Your task to perform on an android device: Show me productivity apps on the Play Store Image 0: 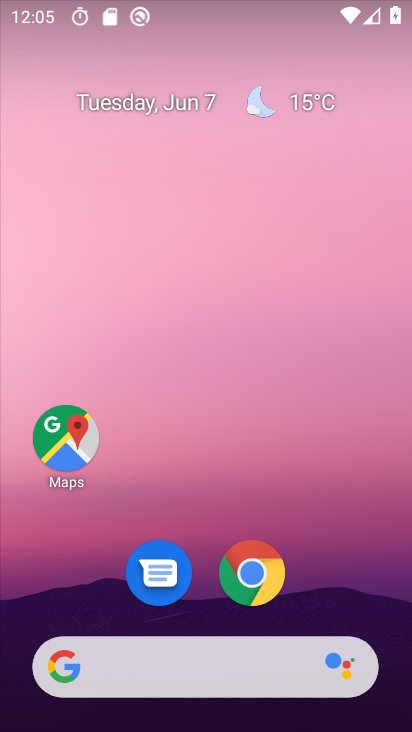
Step 0: drag from (211, 617) to (172, 115)
Your task to perform on an android device: Show me productivity apps on the Play Store Image 1: 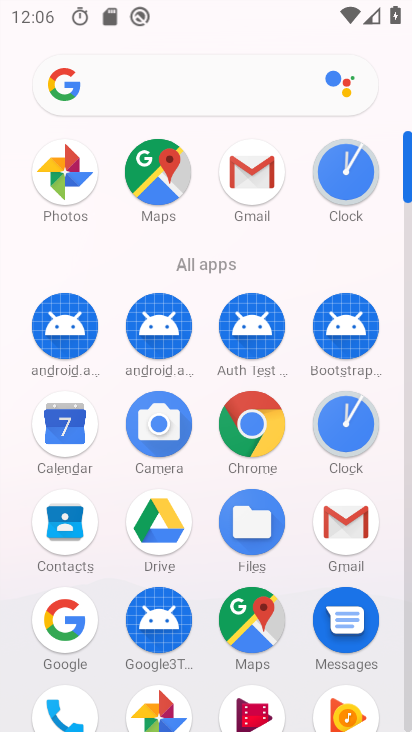
Step 1: drag from (113, 592) to (113, 240)
Your task to perform on an android device: Show me productivity apps on the Play Store Image 2: 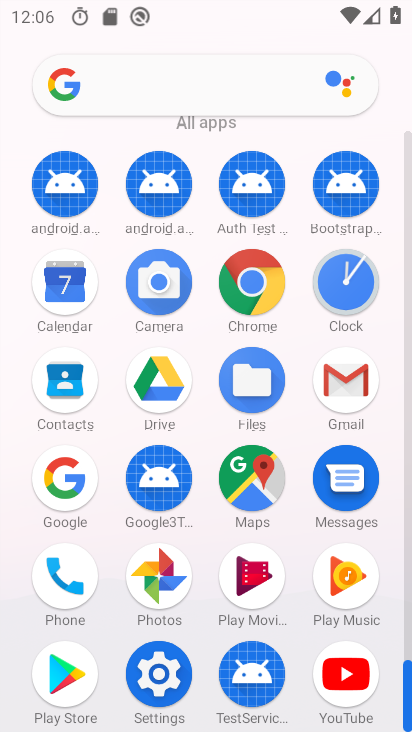
Step 2: click (67, 680)
Your task to perform on an android device: Show me productivity apps on the Play Store Image 3: 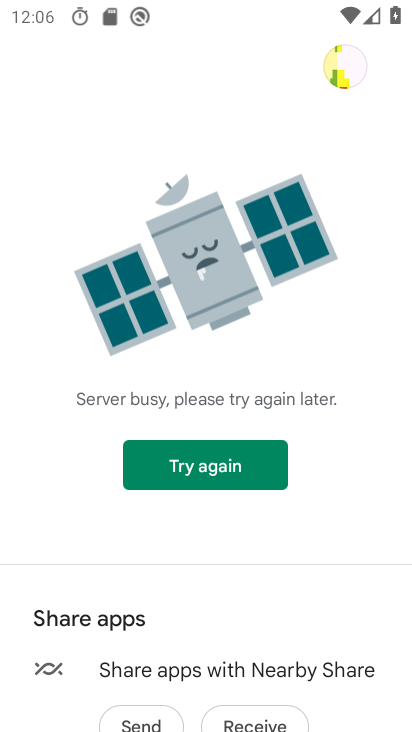
Step 3: drag from (222, 607) to (226, 239)
Your task to perform on an android device: Show me productivity apps on the Play Store Image 4: 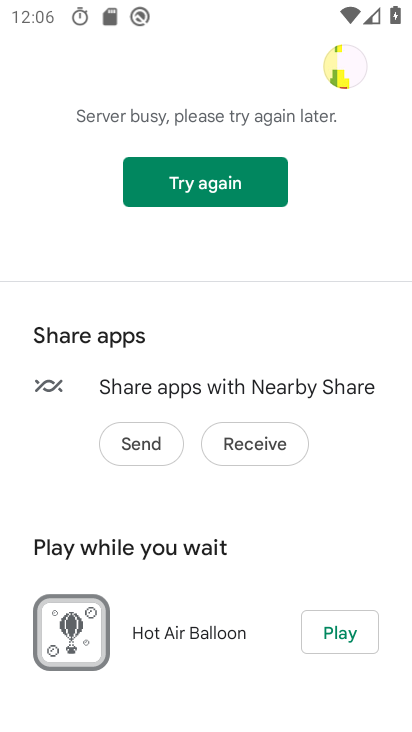
Step 4: drag from (223, 486) to (224, 164)
Your task to perform on an android device: Show me productivity apps on the Play Store Image 5: 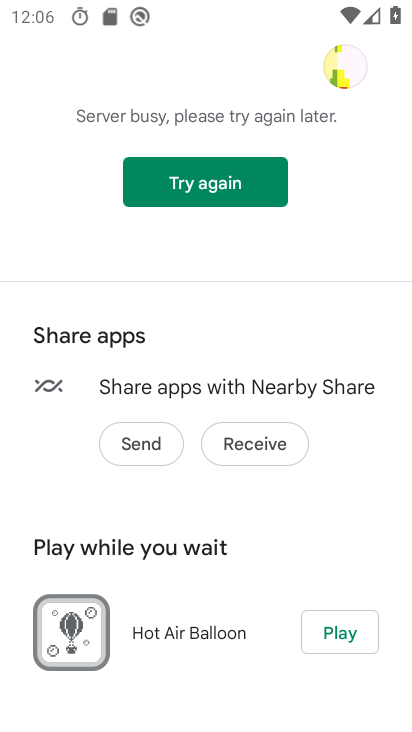
Step 5: click (215, 187)
Your task to perform on an android device: Show me productivity apps on the Play Store Image 6: 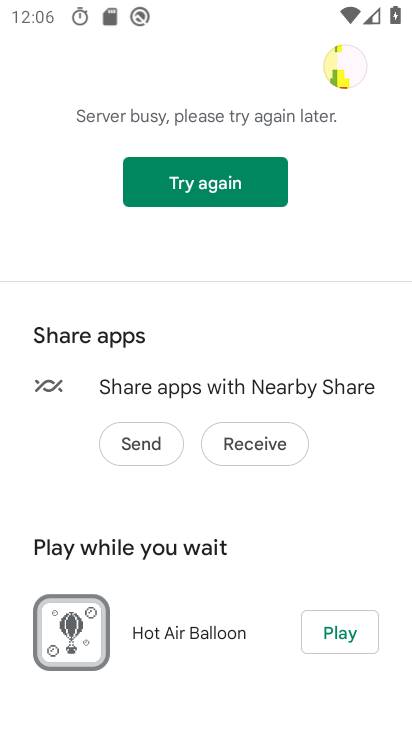
Step 6: click (215, 187)
Your task to perform on an android device: Show me productivity apps on the Play Store Image 7: 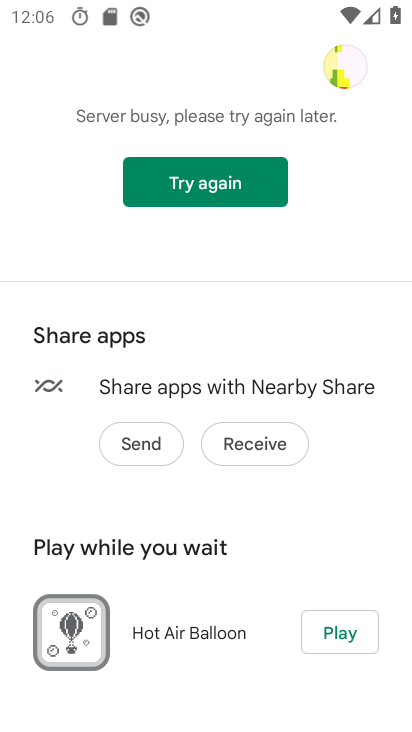
Step 7: click (215, 187)
Your task to perform on an android device: Show me productivity apps on the Play Store Image 8: 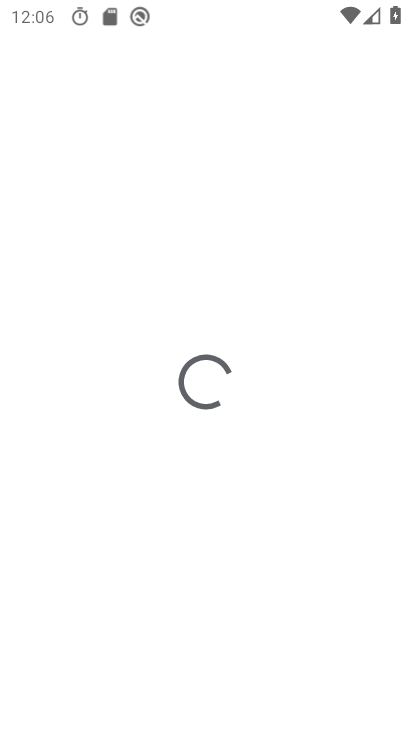
Step 8: task complete